Your task to perform on an android device: turn on translation in the chrome app Image 0: 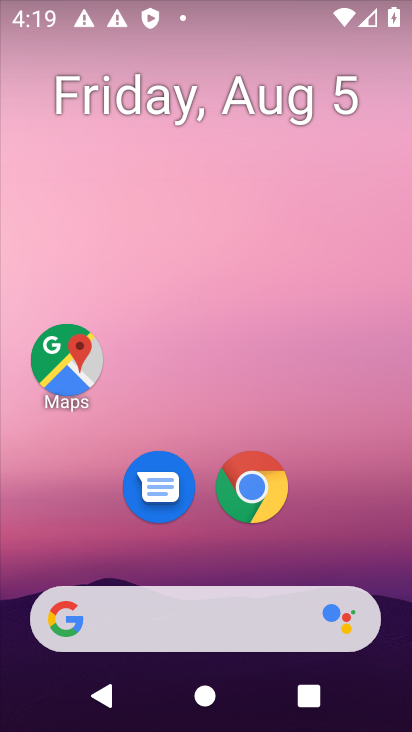
Step 0: click (250, 473)
Your task to perform on an android device: turn on translation in the chrome app Image 1: 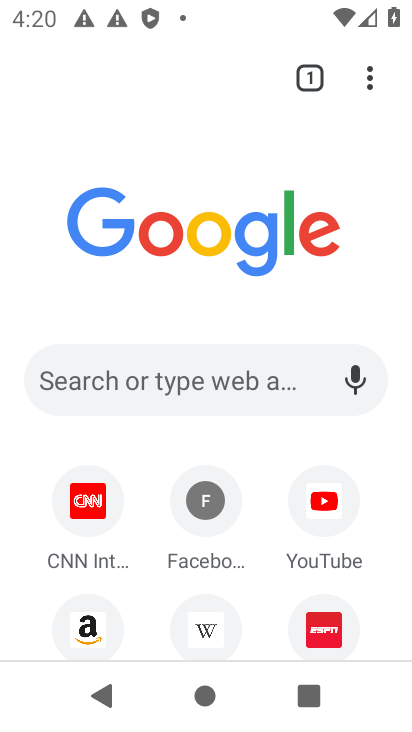
Step 1: task complete